Your task to perform on an android device: turn on improve location accuracy Image 0: 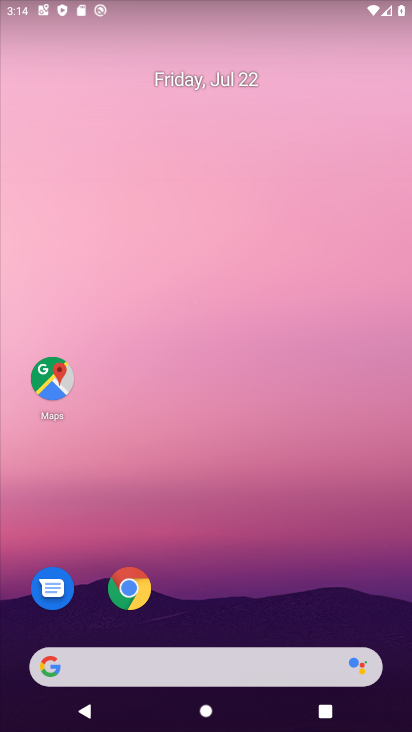
Step 0: drag from (215, 586) to (235, 169)
Your task to perform on an android device: turn on improve location accuracy Image 1: 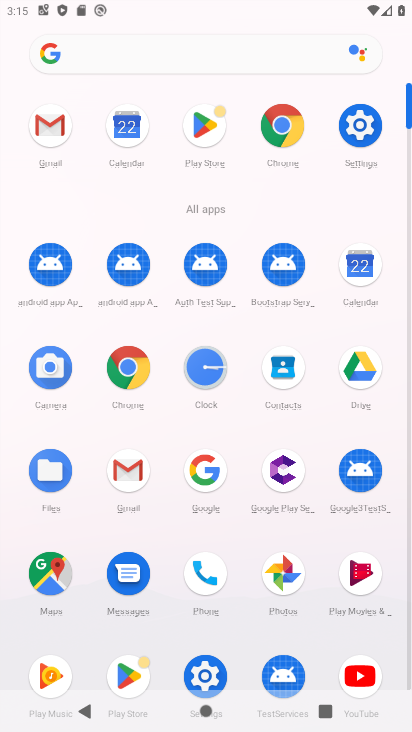
Step 1: click (348, 126)
Your task to perform on an android device: turn on improve location accuracy Image 2: 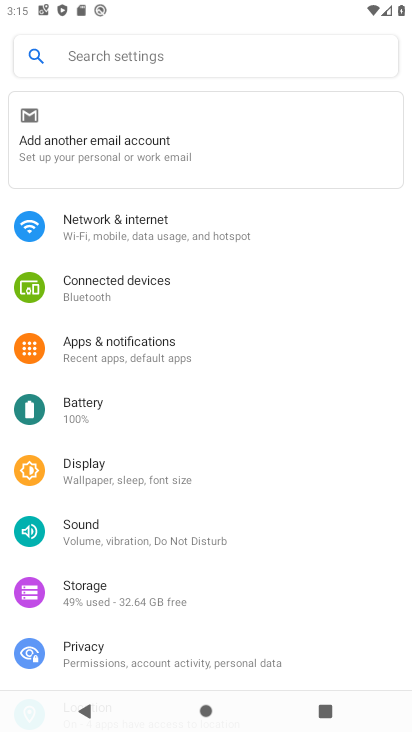
Step 2: drag from (102, 659) to (132, 310)
Your task to perform on an android device: turn on improve location accuracy Image 3: 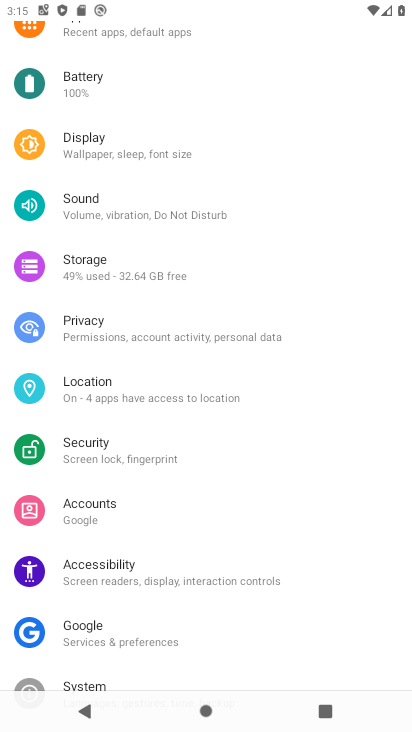
Step 3: click (86, 394)
Your task to perform on an android device: turn on improve location accuracy Image 4: 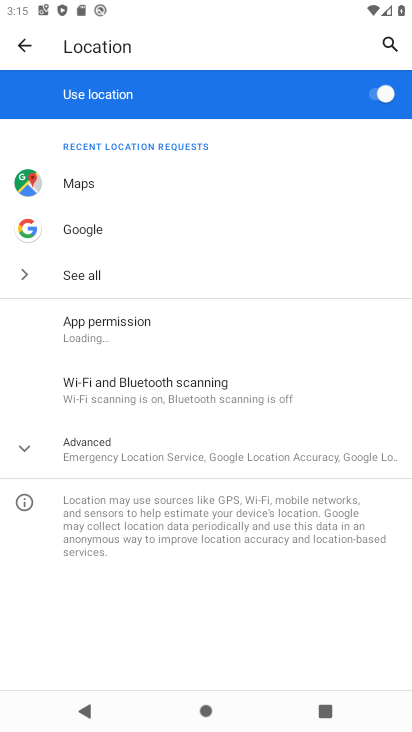
Step 4: click (98, 459)
Your task to perform on an android device: turn on improve location accuracy Image 5: 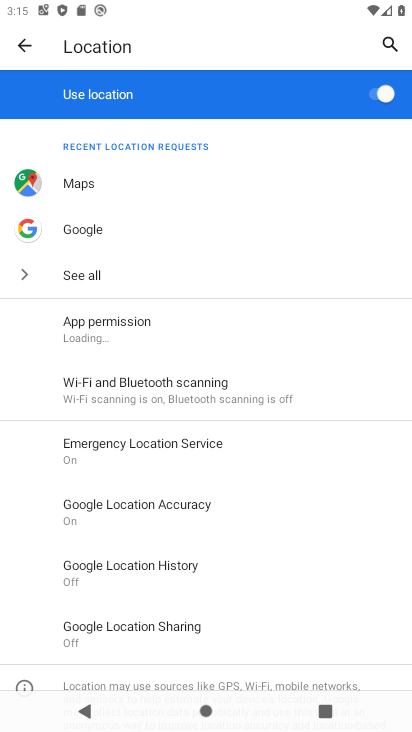
Step 5: click (149, 502)
Your task to perform on an android device: turn on improve location accuracy Image 6: 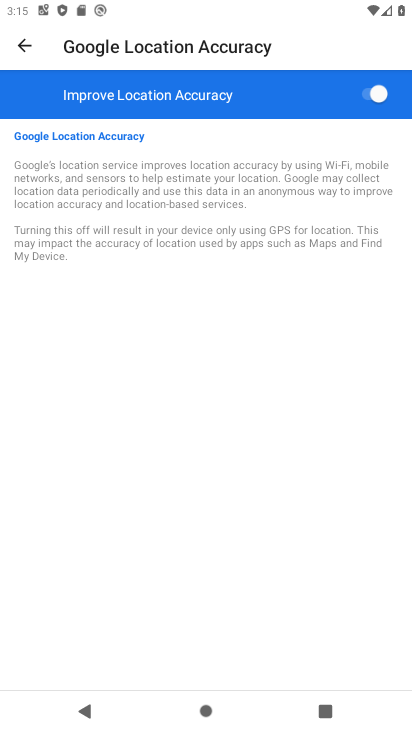
Step 6: task complete